Your task to perform on an android device: Open accessibility settings Image 0: 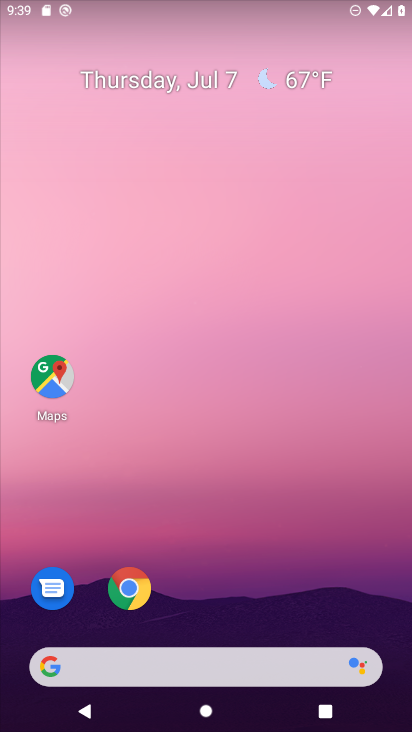
Step 0: drag from (261, 599) to (172, 105)
Your task to perform on an android device: Open accessibility settings Image 1: 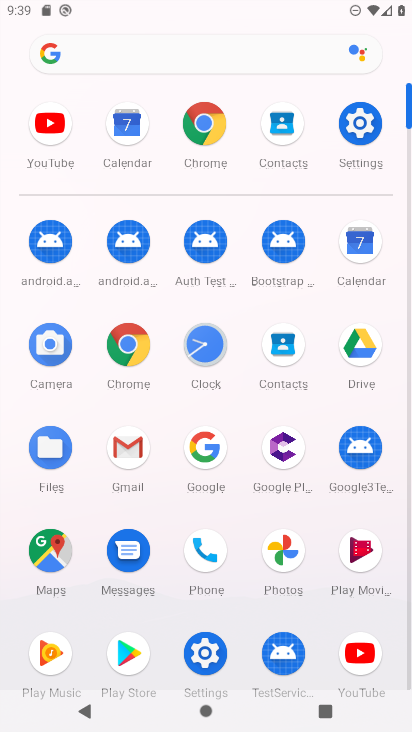
Step 1: click (361, 123)
Your task to perform on an android device: Open accessibility settings Image 2: 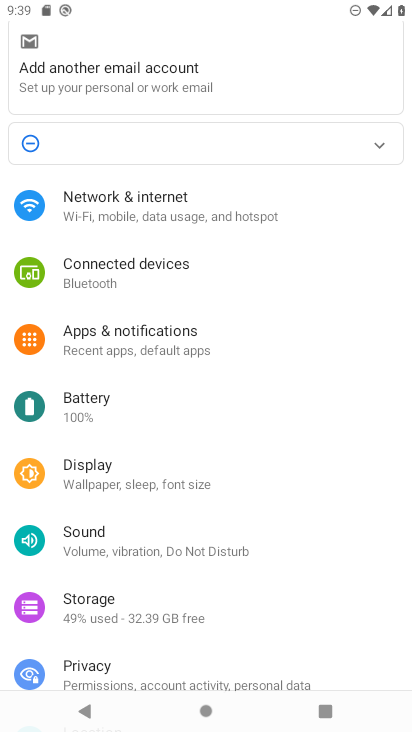
Step 2: drag from (138, 420) to (172, 312)
Your task to perform on an android device: Open accessibility settings Image 3: 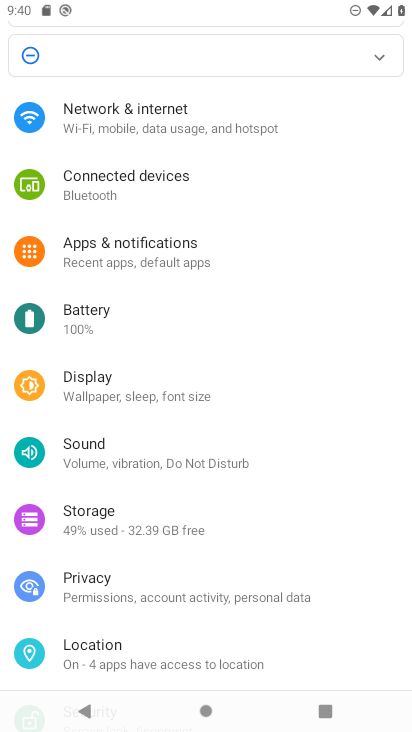
Step 3: drag from (155, 432) to (194, 342)
Your task to perform on an android device: Open accessibility settings Image 4: 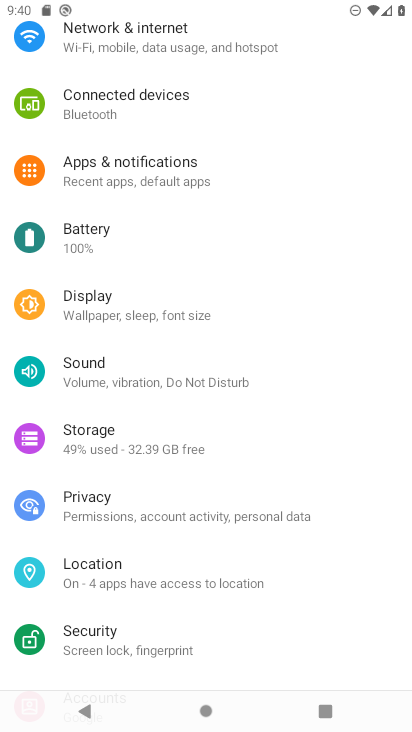
Step 4: drag from (173, 424) to (205, 341)
Your task to perform on an android device: Open accessibility settings Image 5: 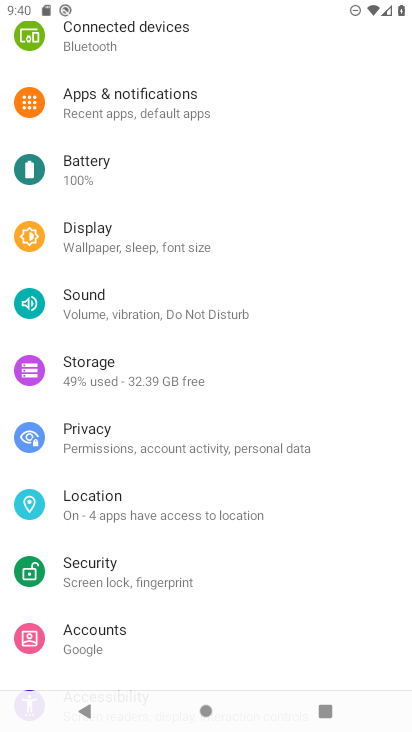
Step 5: drag from (156, 458) to (232, 365)
Your task to perform on an android device: Open accessibility settings Image 6: 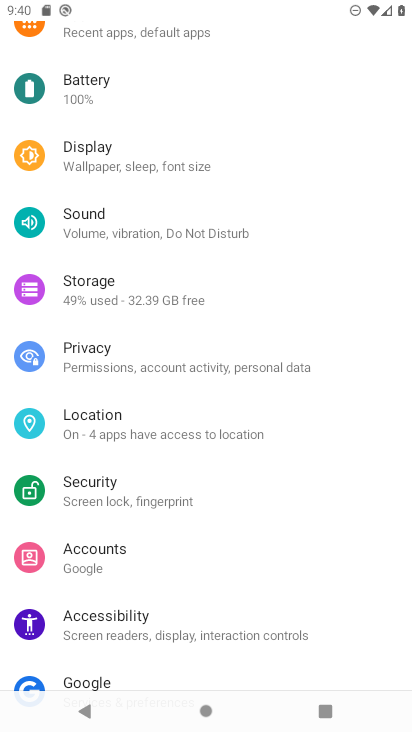
Step 6: drag from (181, 464) to (273, 356)
Your task to perform on an android device: Open accessibility settings Image 7: 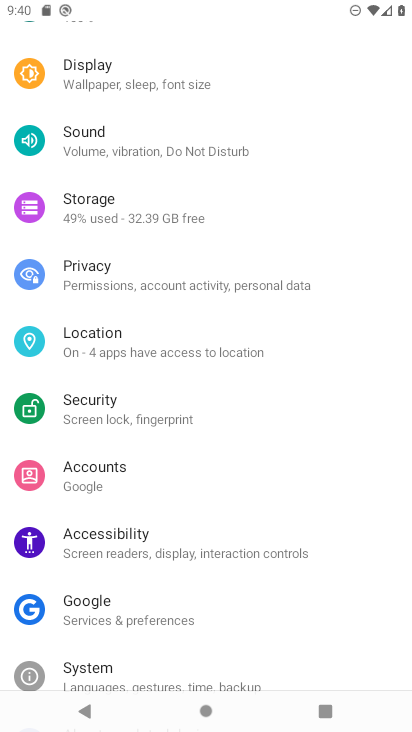
Step 7: click (132, 532)
Your task to perform on an android device: Open accessibility settings Image 8: 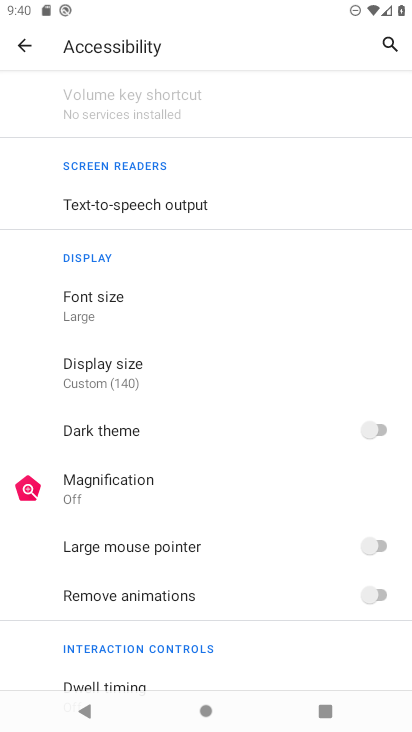
Step 8: task complete